Your task to perform on an android device: What's on my calendar today? Image 0: 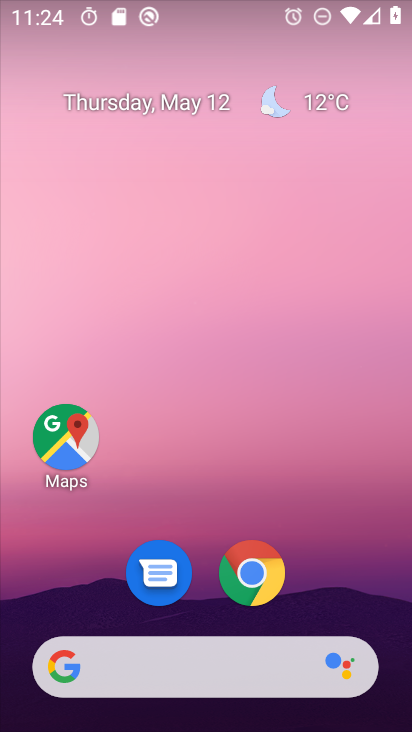
Step 0: drag from (370, 401) to (362, 263)
Your task to perform on an android device: What's on my calendar today? Image 1: 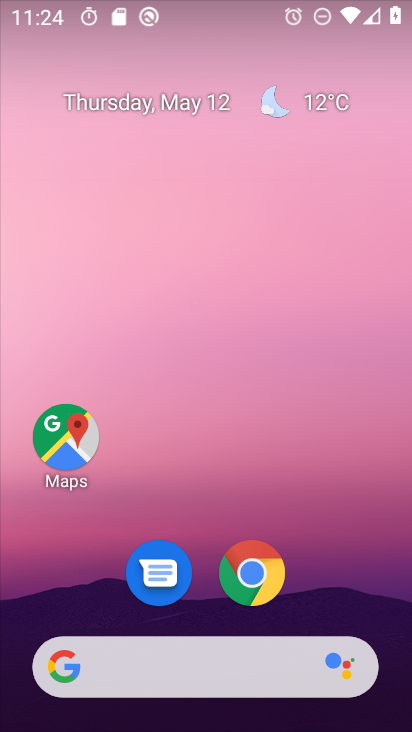
Step 1: drag from (370, 386) to (365, 224)
Your task to perform on an android device: What's on my calendar today? Image 2: 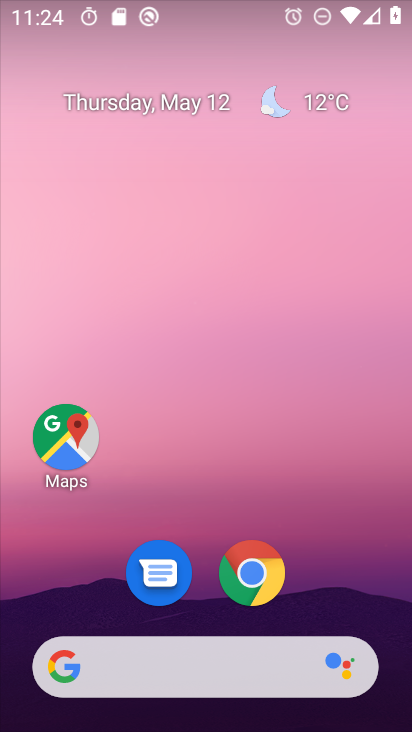
Step 2: drag from (390, 515) to (357, 236)
Your task to perform on an android device: What's on my calendar today? Image 3: 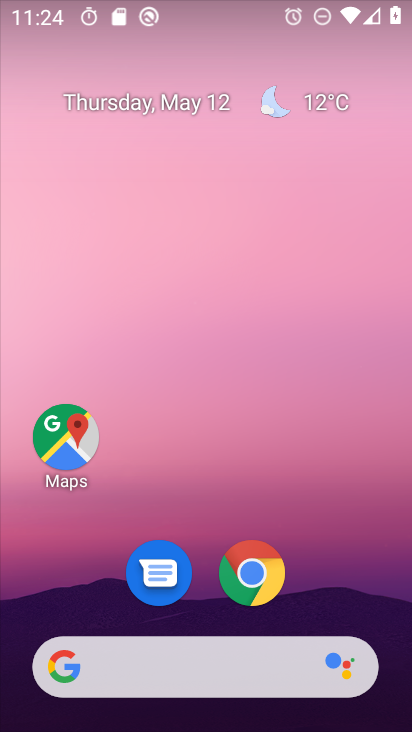
Step 3: drag from (393, 681) to (375, 317)
Your task to perform on an android device: What's on my calendar today? Image 4: 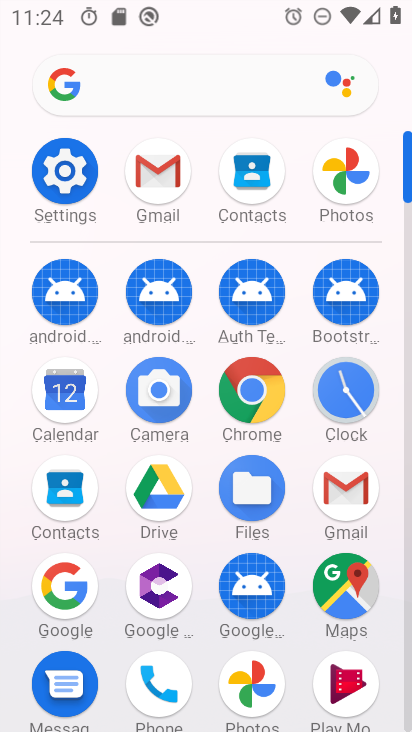
Step 4: click (79, 404)
Your task to perform on an android device: What's on my calendar today? Image 5: 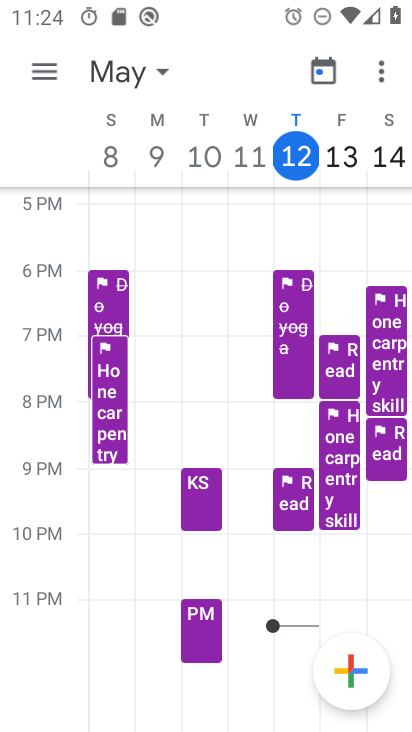
Step 5: click (286, 148)
Your task to perform on an android device: What's on my calendar today? Image 6: 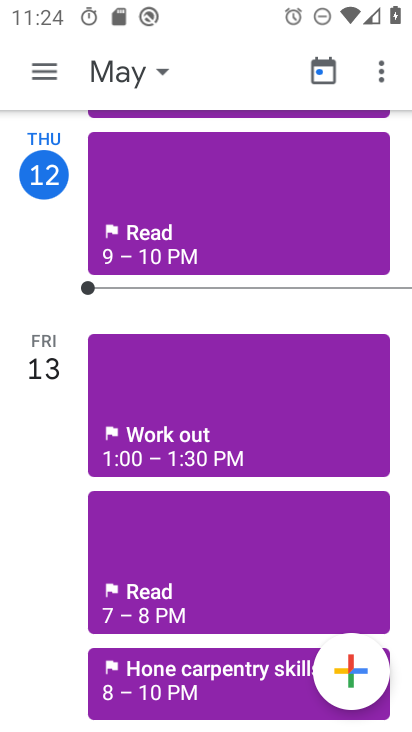
Step 6: task complete